Your task to perform on an android device: all mails in gmail Image 0: 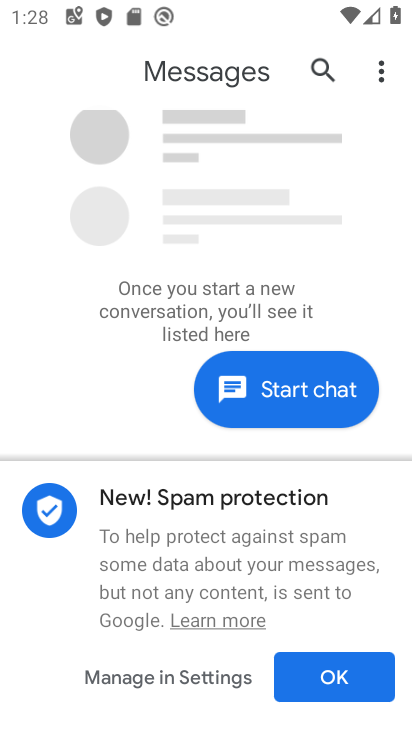
Step 0: press home button
Your task to perform on an android device: all mails in gmail Image 1: 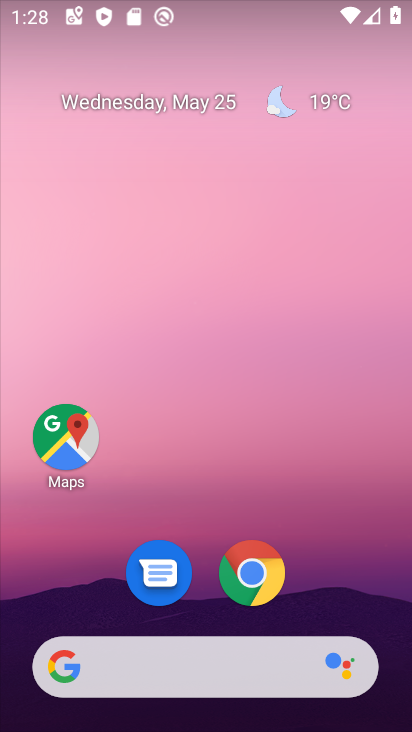
Step 1: drag from (380, 605) to (333, 83)
Your task to perform on an android device: all mails in gmail Image 2: 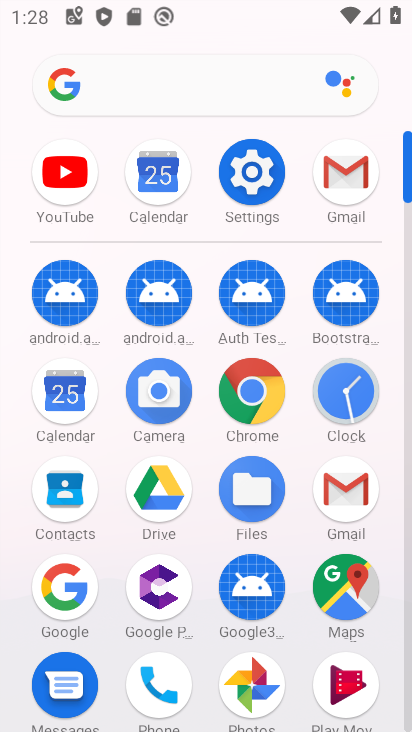
Step 2: click (409, 695)
Your task to perform on an android device: all mails in gmail Image 3: 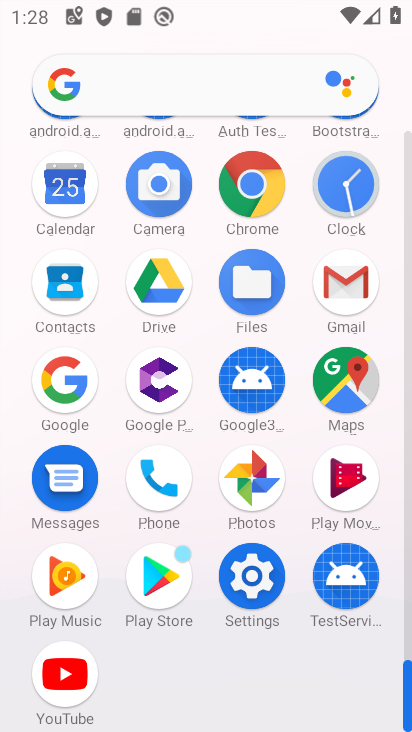
Step 3: click (344, 278)
Your task to perform on an android device: all mails in gmail Image 4: 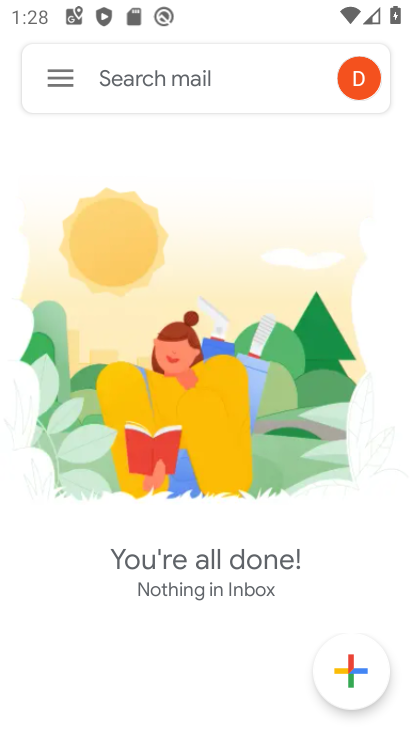
Step 4: click (59, 80)
Your task to perform on an android device: all mails in gmail Image 5: 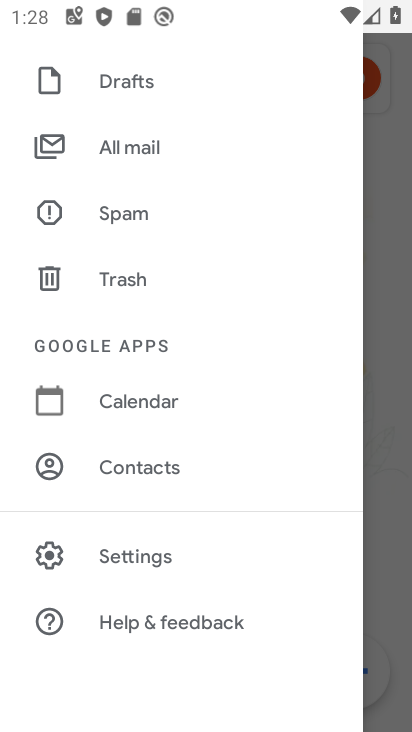
Step 5: click (118, 150)
Your task to perform on an android device: all mails in gmail Image 6: 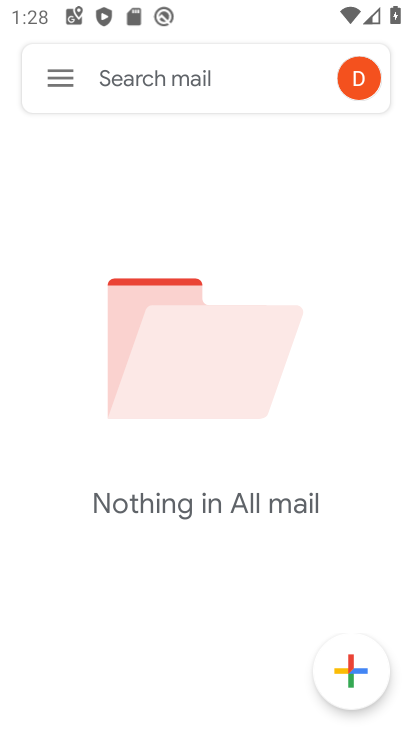
Step 6: task complete